Your task to perform on an android device: What is the news today? Image 0: 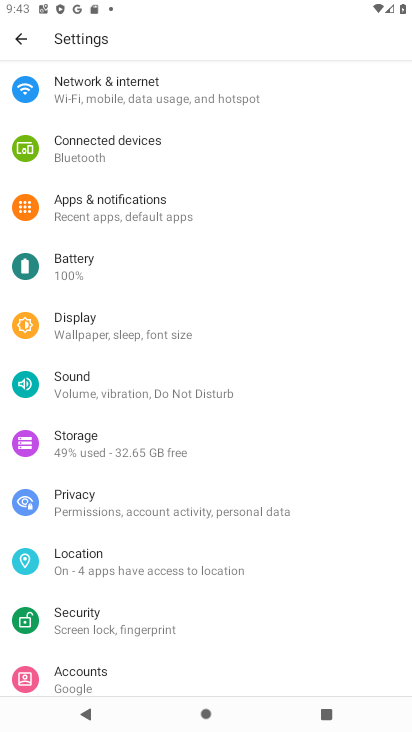
Step 0: press home button
Your task to perform on an android device: What is the news today? Image 1: 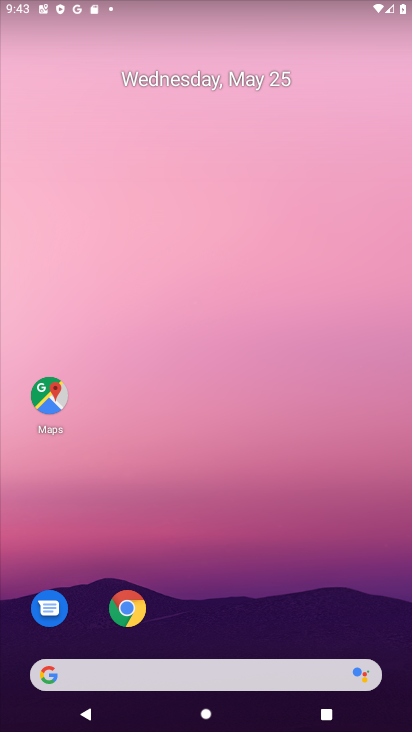
Step 1: click (127, 670)
Your task to perform on an android device: What is the news today? Image 2: 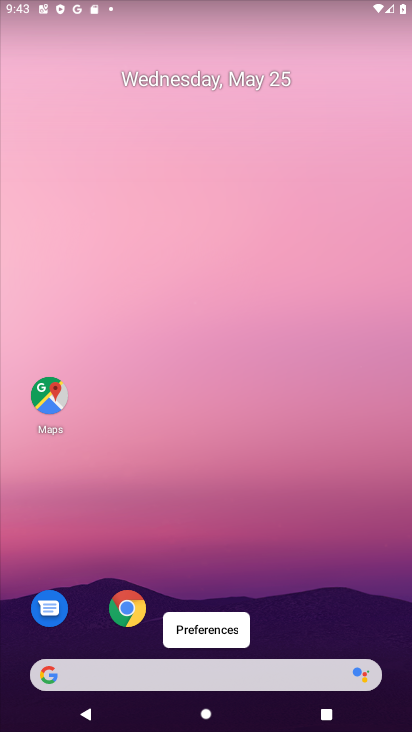
Step 2: click (104, 673)
Your task to perform on an android device: What is the news today? Image 3: 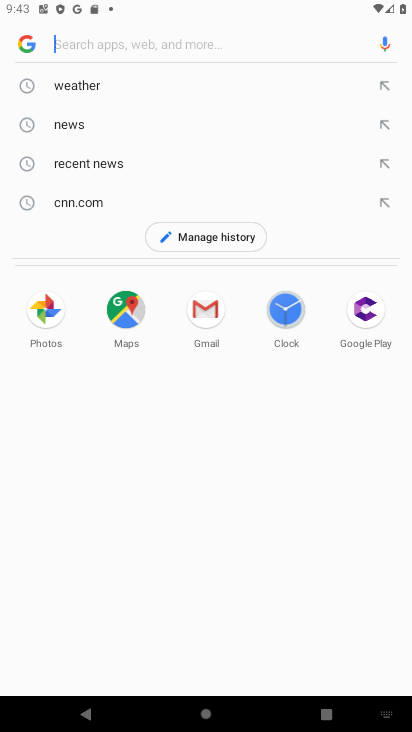
Step 3: type "news today"
Your task to perform on an android device: What is the news today? Image 4: 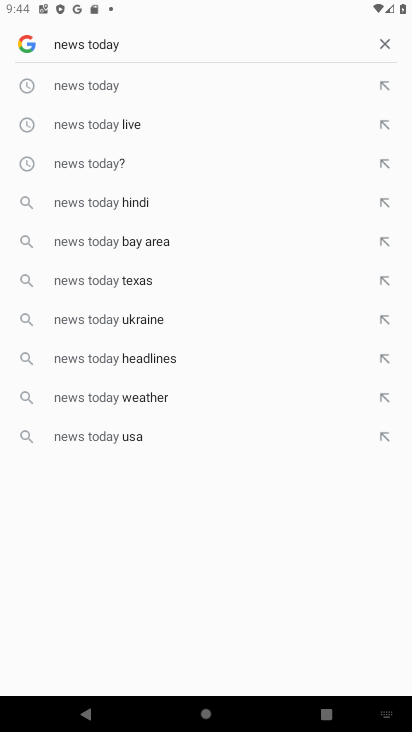
Step 4: click (82, 85)
Your task to perform on an android device: What is the news today? Image 5: 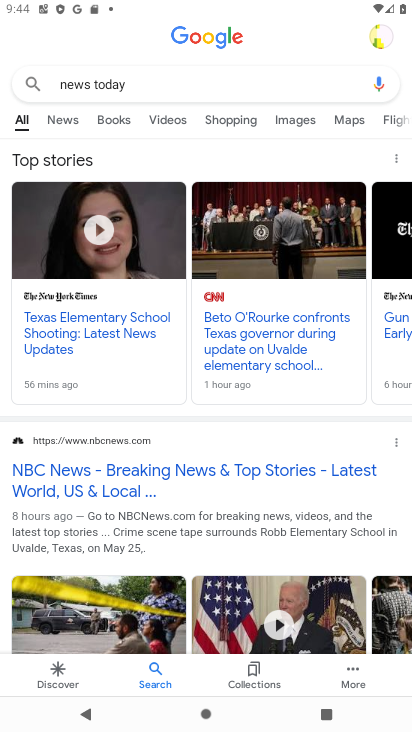
Step 5: click (66, 479)
Your task to perform on an android device: What is the news today? Image 6: 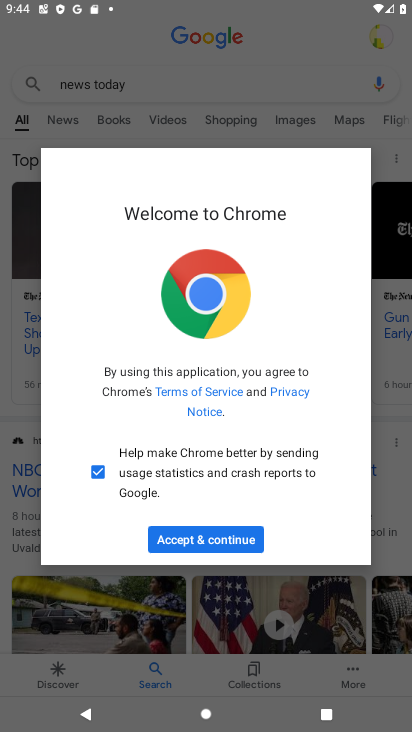
Step 6: click (184, 542)
Your task to perform on an android device: What is the news today? Image 7: 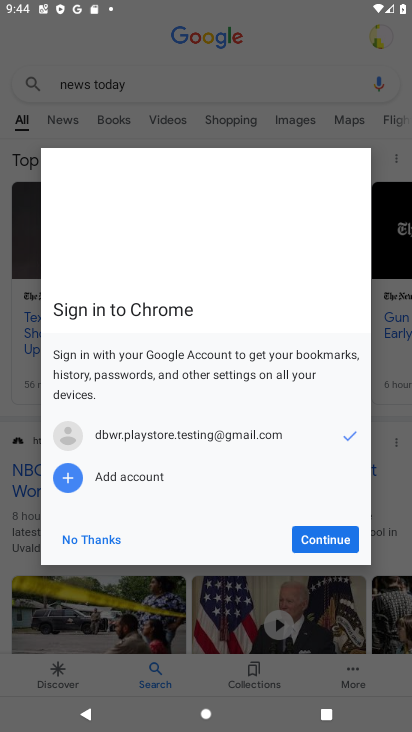
Step 7: click (99, 533)
Your task to perform on an android device: What is the news today? Image 8: 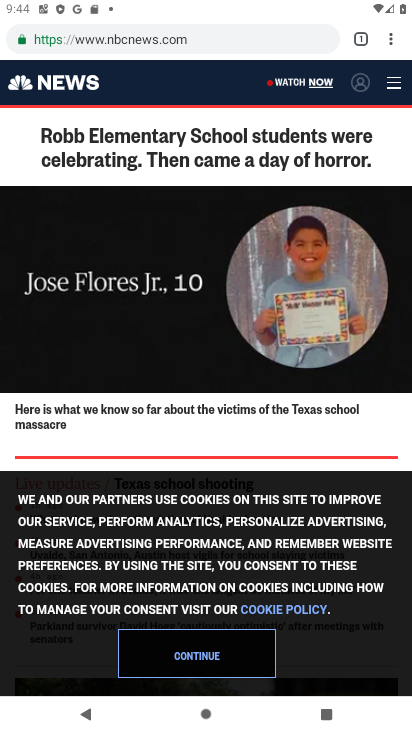
Step 8: task complete